Your task to perform on an android device: Open settings Image 0: 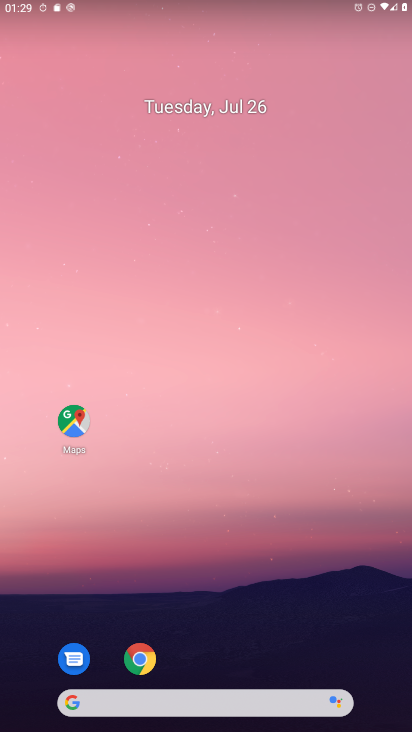
Step 0: drag from (237, 645) to (266, 78)
Your task to perform on an android device: Open settings Image 1: 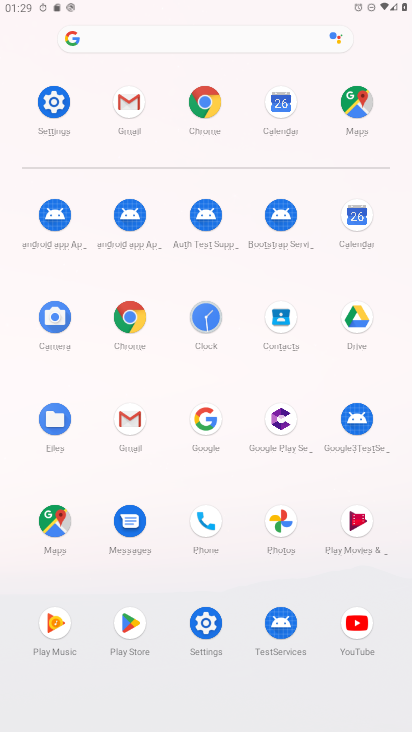
Step 1: click (205, 614)
Your task to perform on an android device: Open settings Image 2: 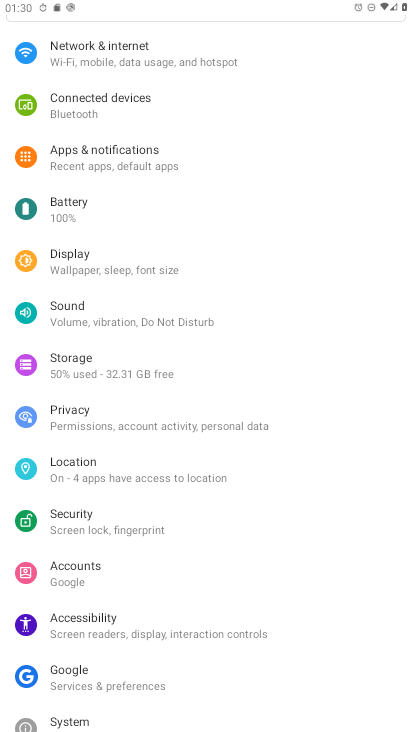
Step 2: task complete